Your task to perform on an android device: check the backup settings in the google photos Image 0: 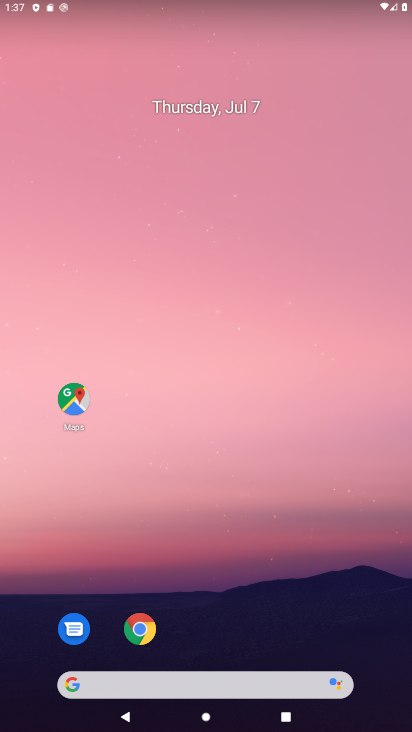
Step 0: drag from (341, 527) to (346, 17)
Your task to perform on an android device: check the backup settings in the google photos Image 1: 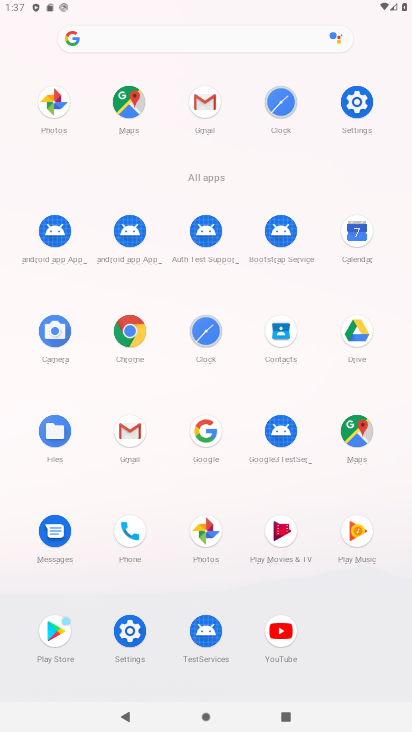
Step 1: click (202, 511)
Your task to perform on an android device: check the backup settings in the google photos Image 2: 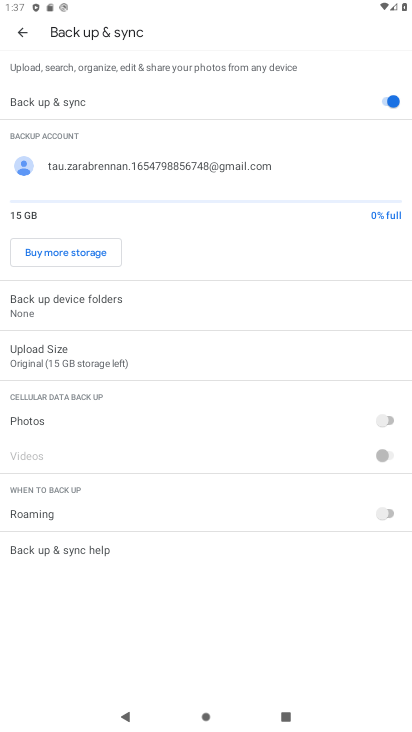
Step 2: click (155, 109)
Your task to perform on an android device: check the backup settings in the google photos Image 3: 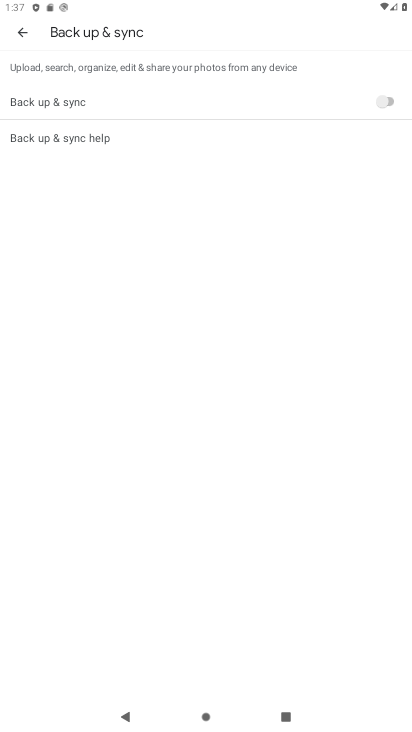
Step 3: click (155, 109)
Your task to perform on an android device: check the backup settings in the google photos Image 4: 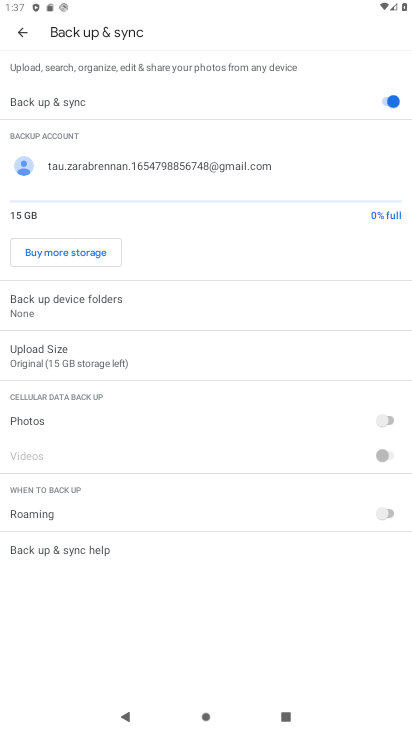
Step 4: click (9, 17)
Your task to perform on an android device: check the backup settings in the google photos Image 5: 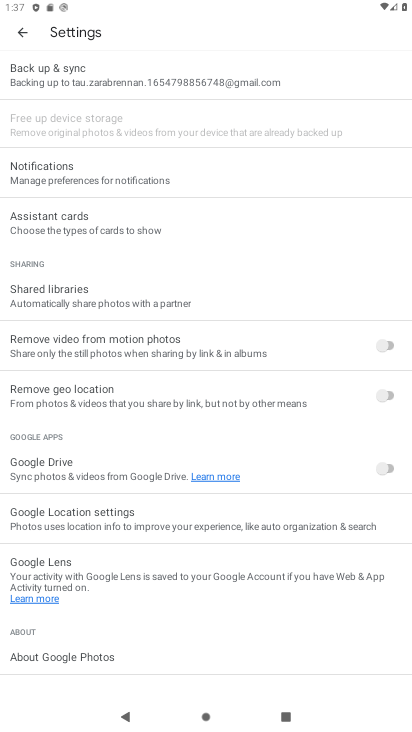
Step 5: click (38, 79)
Your task to perform on an android device: check the backup settings in the google photos Image 6: 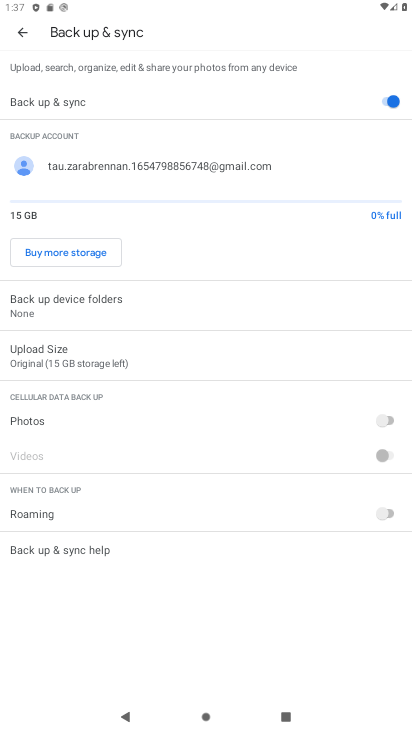
Step 6: task complete